Your task to perform on an android device: turn on data saver in the chrome app Image 0: 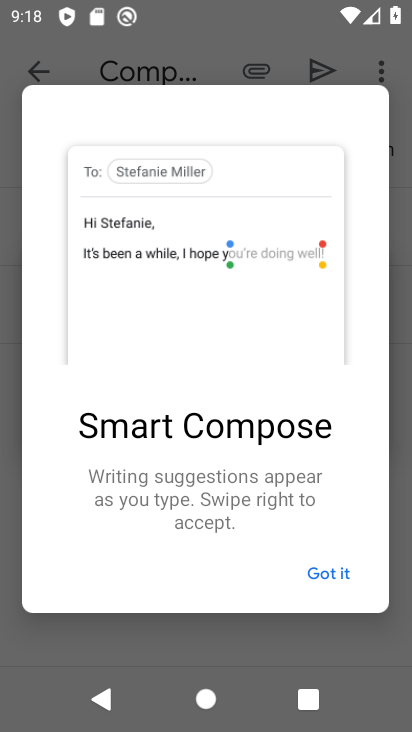
Step 0: press home button
Your task to perform on an android device: turn on data saver in the chrome app Image 1: 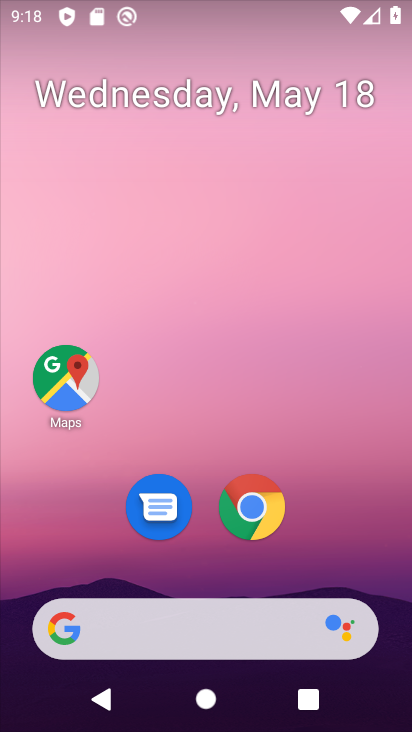
Step 1: click (253, 506)
Your task to perform on an android device: turn on data saver in the chrome app Image 2: 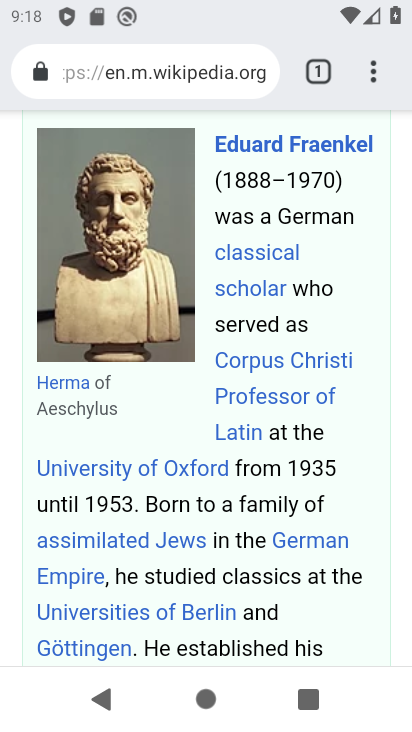
Step 2: drag from (378, 61) to (183, 516)
Your task to perform on an android device: turn on data saver in the chrome app Image 3: 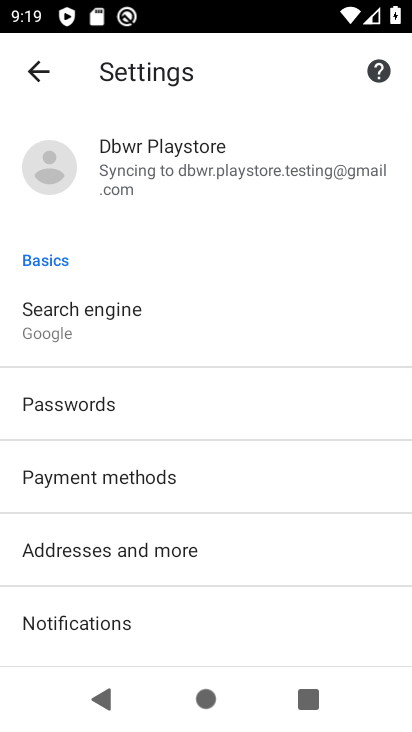
Step 3: drag from (184, 554) to (251, 138)
Your task to perform on an android device: turn on data saver in the chrome app Image 4: 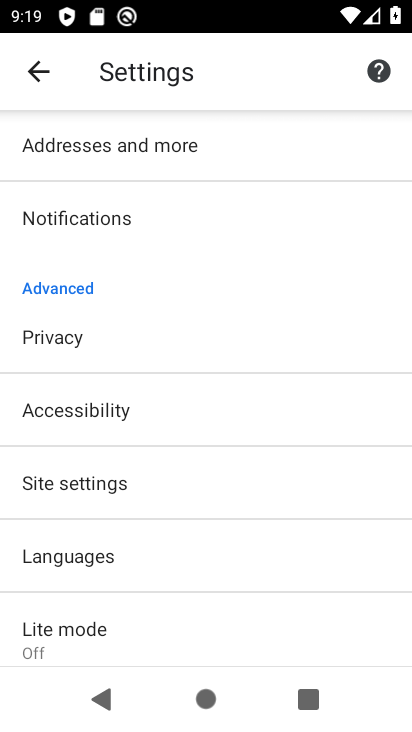
Step 4: drag from (109, 486) to (197, 247)
Your task to perform on an android device: turn on data saver in the chrome app Image 5: 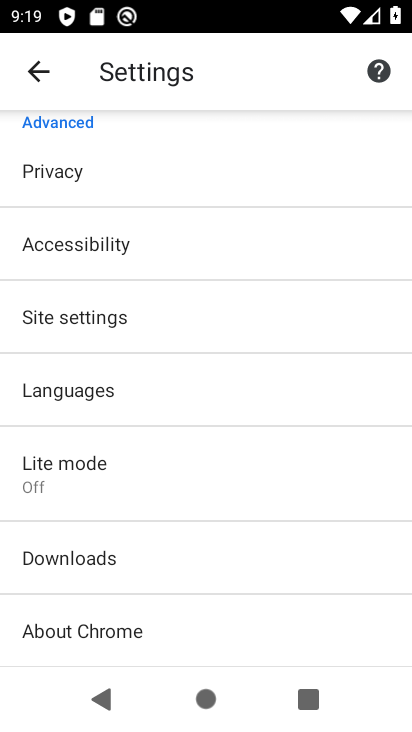
Step 5: click (91, 463)
Your task to perform on an android device: turn on data saver in the chrome app Image 6: 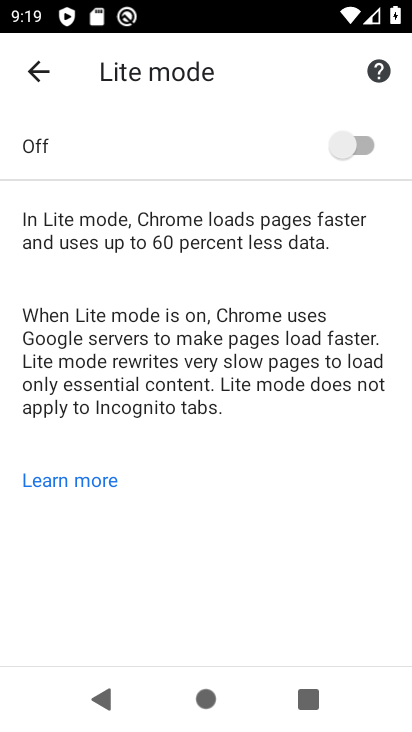
Step 6: click (353, 138)
Your task to perform on an android device: turn on data saver in the chrome app Image 7: 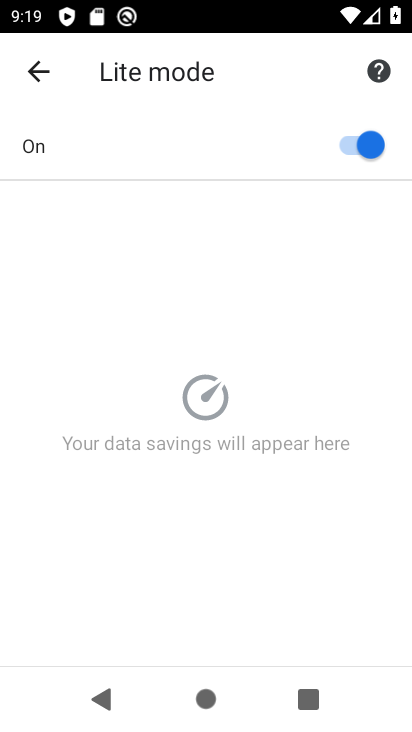
Step 7: task complete